Your task to perform on an android device: Open Wikipedia Image 0: 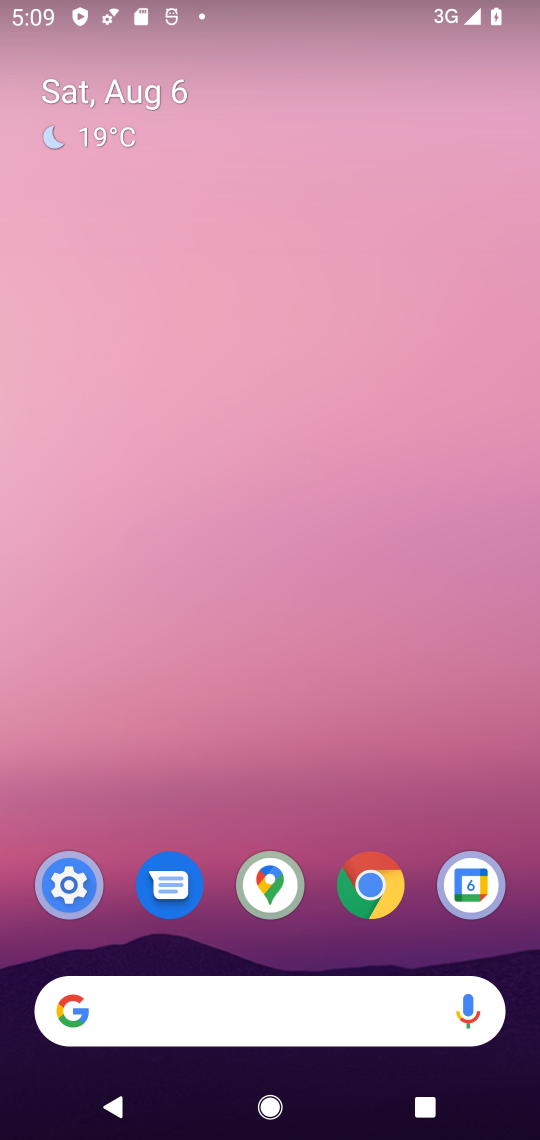
Step 0: drag from (445, 914) to (210, 44)
Your task to perform on an android device: Open Wikipedia Image 1: 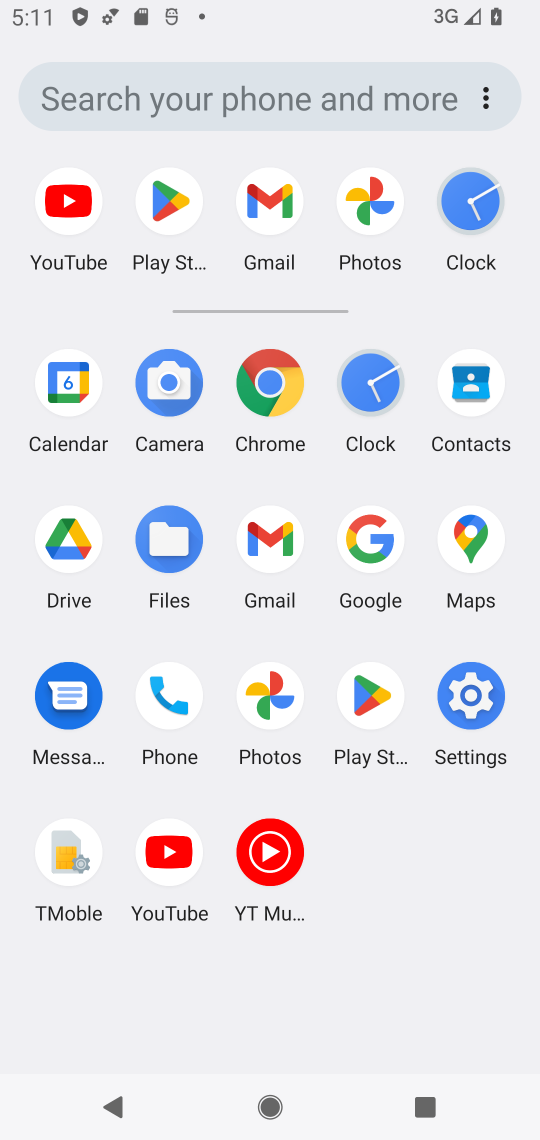
Step 1: click (375, 539)
Your task to perform on an android device: Open Wikipedia Image 2: 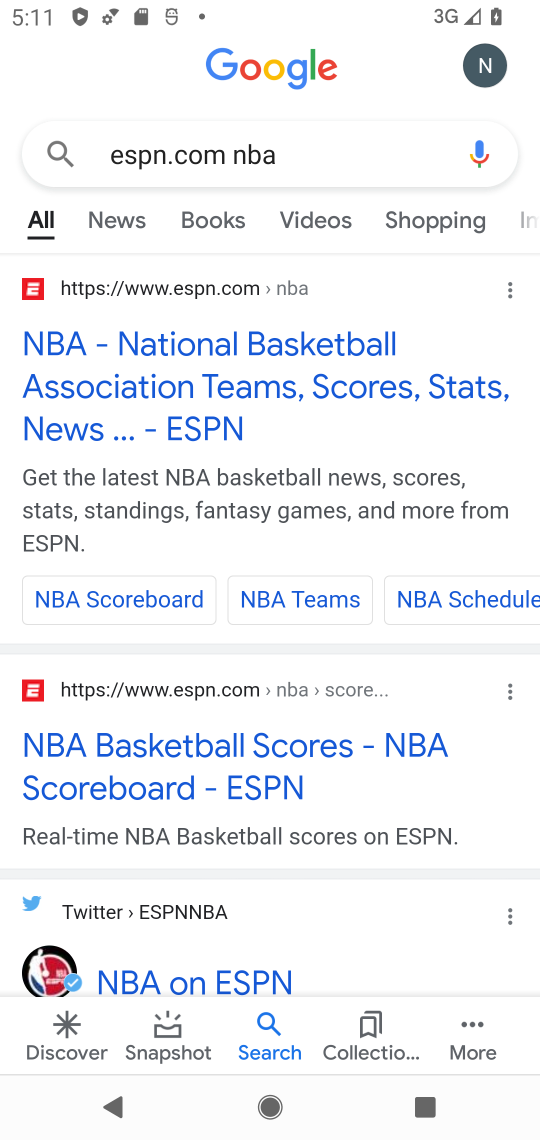
Step 2: press back button
Your task to perform on an android device: Open Wikipedia Image 3: 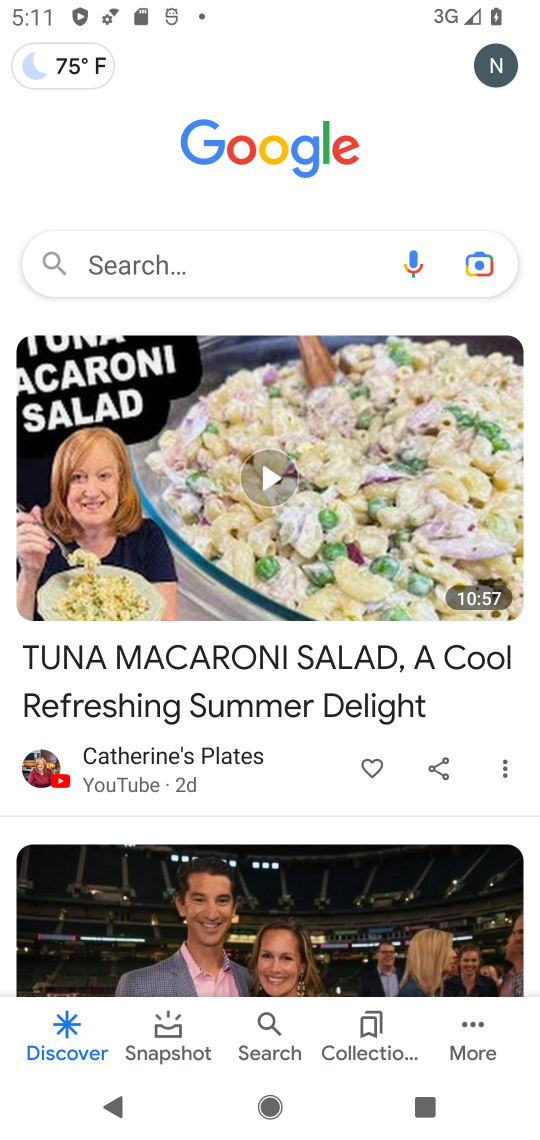
Step 3: click (213, 258)
Your task to perform on an android device: Open Wikipedia Image 4: 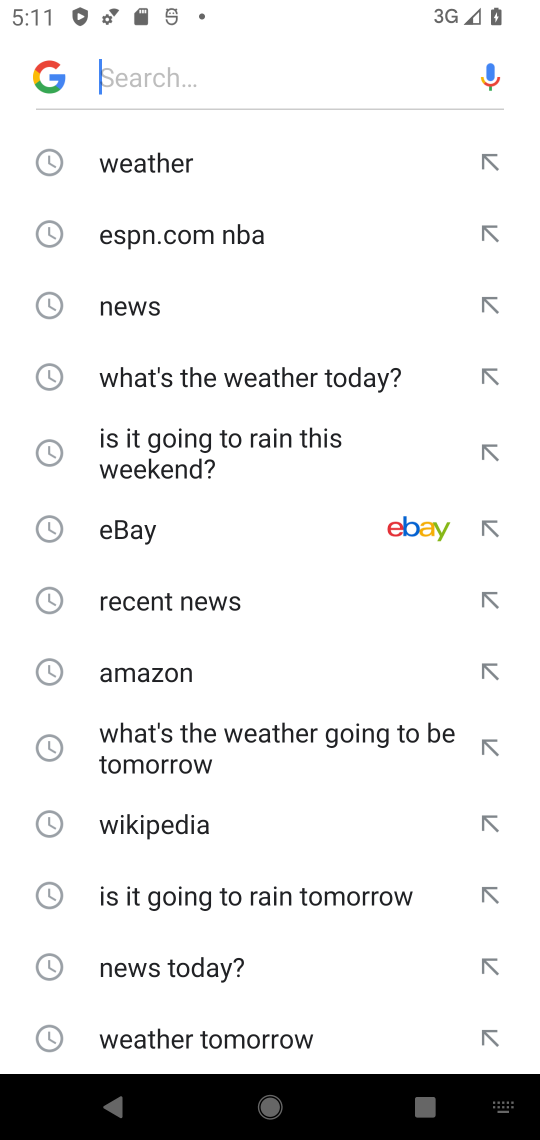
Step 4: click (177, 830)
Your task to perform on an android device: Open Wikipedia Image 5: 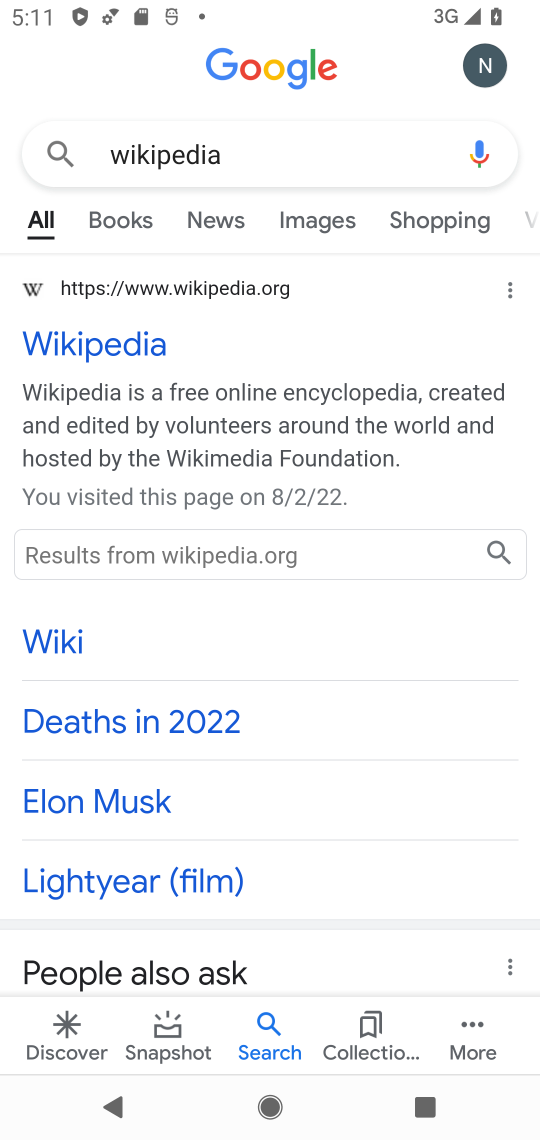
Step 5: task complete